Your task to perform on an android device: Open Chrome and go to the settings page Image 0: 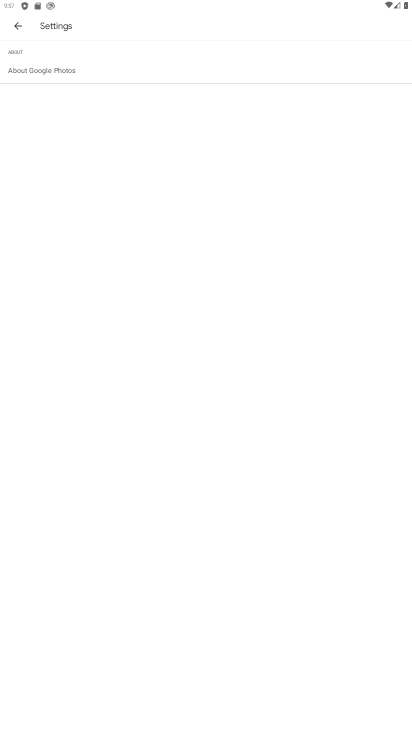
Step 0: press home button
Your task to perform on an android device: Open Chrome and go to the settings page Image 1: 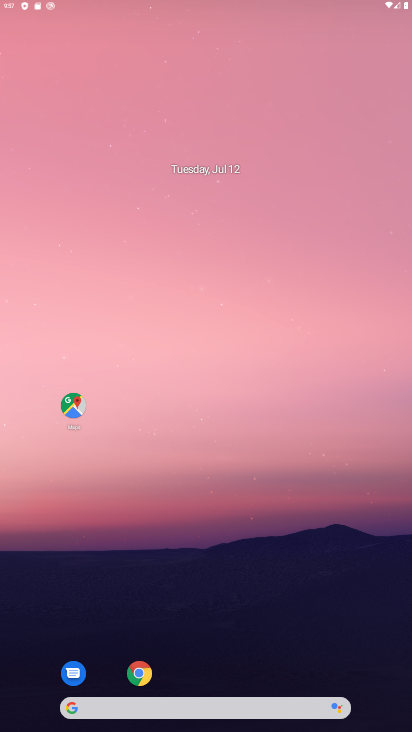
Step 1: drag from (334, 690) to (265, 190)
Your task to perform on an android device: Open Chrome and go to the settings page Image 2: 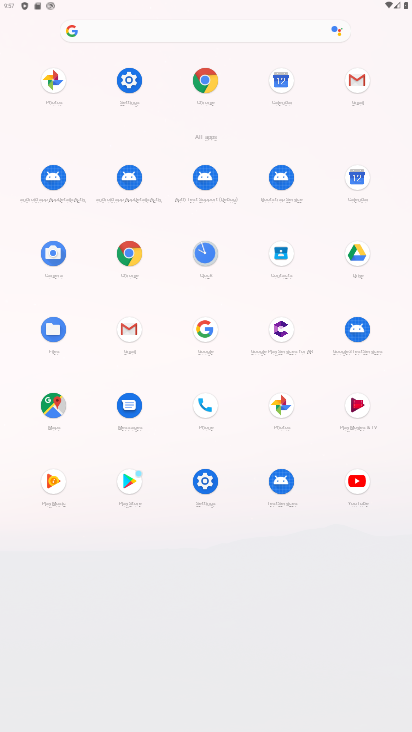
Step 2: click (215, 91)
Your task to perform on an android device: Open Chrome and go to the settings page Image 3: 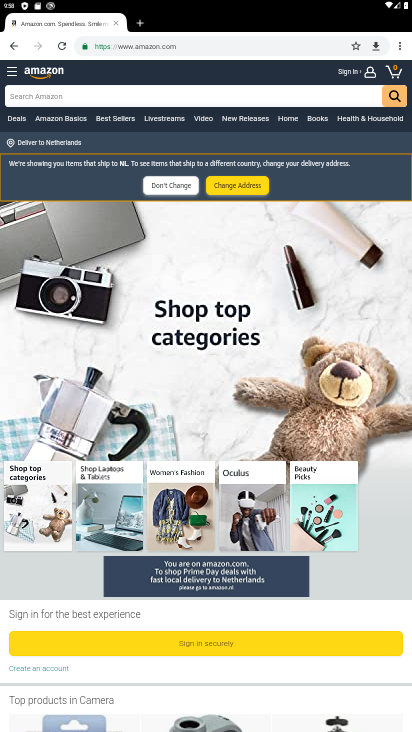
Step 3: task complete